Your task to perform on an android device: open app "Airtel Thanks" (install if not already installed) Image 0: 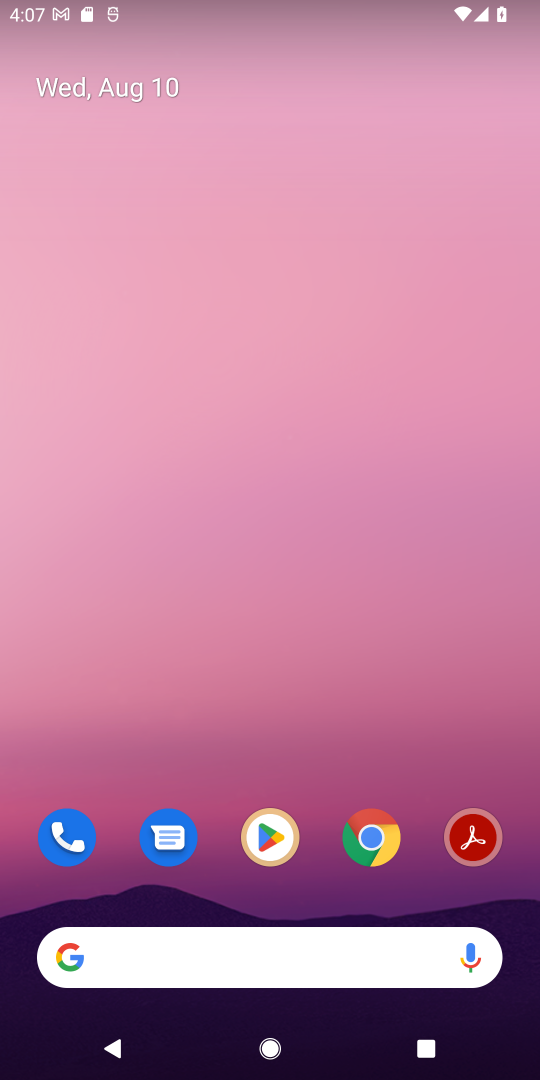
Step 0: click (268, 840)
Your task to perform on an android device: open app "Airtel Thanks" (install if not already installed) Image 1: 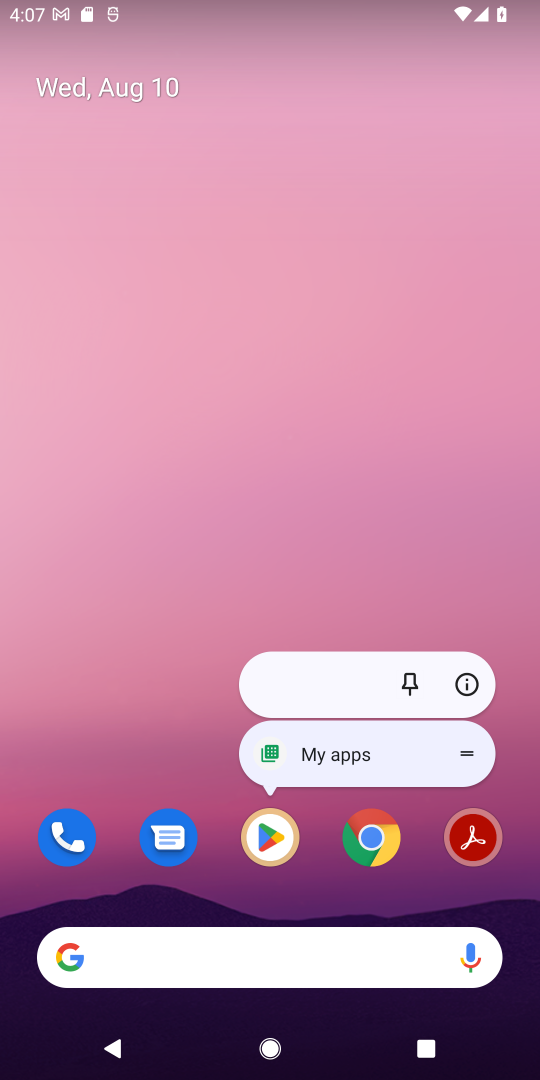
Step 1: click (268, 841)
Your task to perform on an android device: open app "Airtel Thanks" (install if not already installed) Image 2: 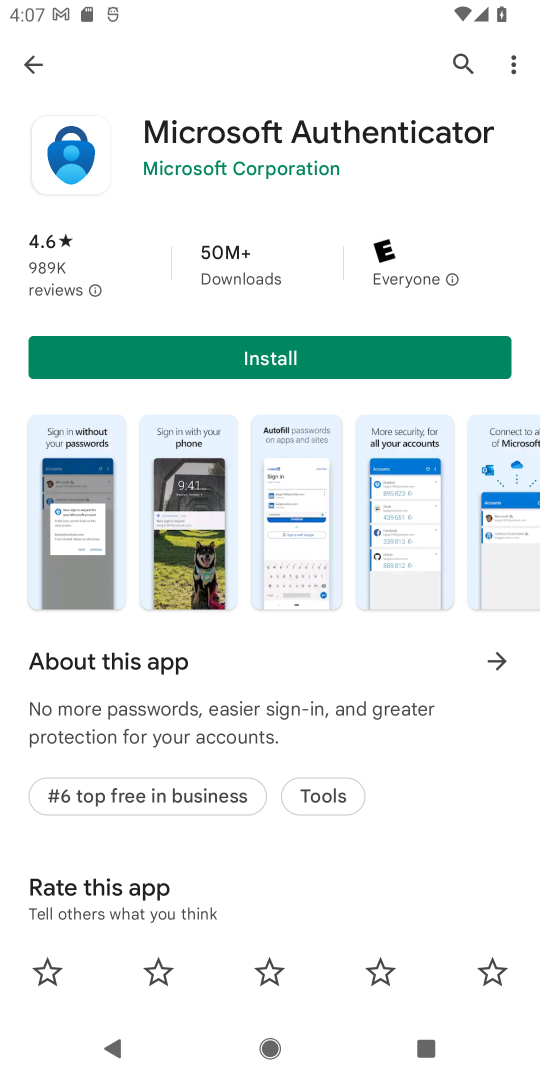
Step 2: click (459, 53)
Your task to perform on an android device: open app "Airtel Thanks" (install if not already installed) Image 3: 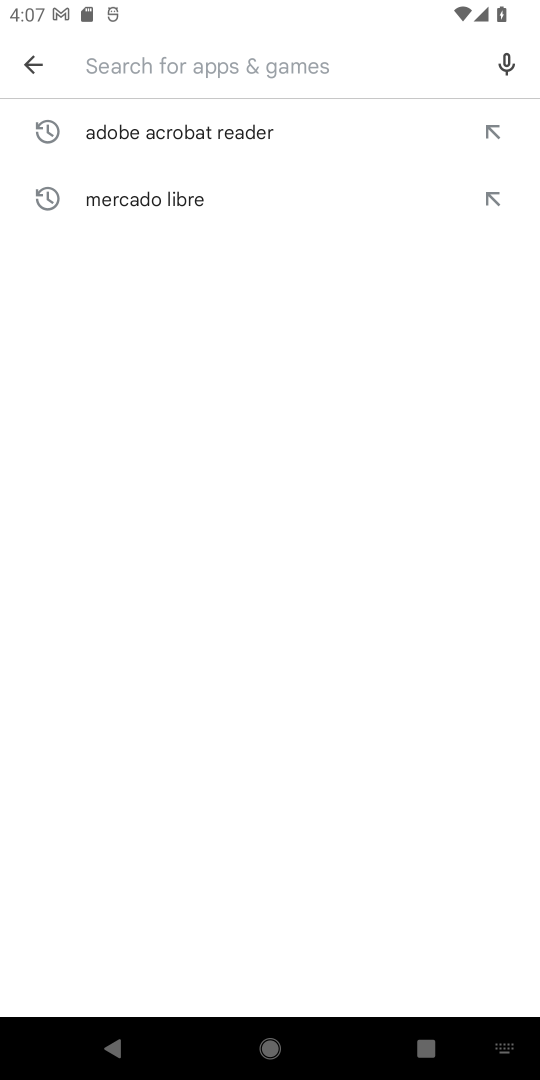
Step 3: type "Airtel Thanks"
Your task to perform on an android device: open app "Airtel Thanks" (install if not already installed) Image 4: 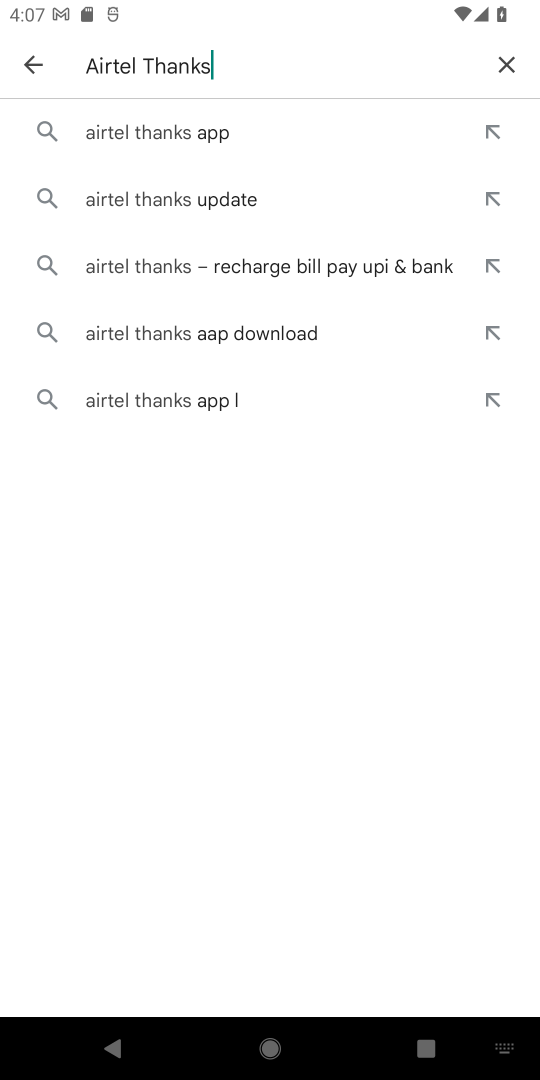
Step 4: click (223, 140)
Your task to perform on an android device: open app "Airtel Thanks" (install if not already installed) Image 5: 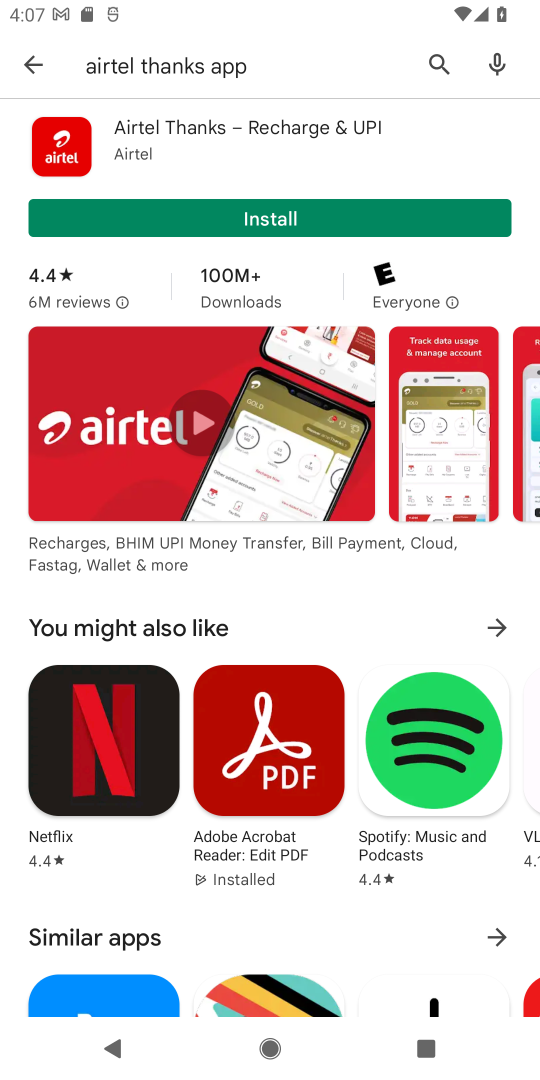
Step 5: click (272, 219)
Your task to perform on an android device: open app "Airtel Thanks" (install if not already installed) Image 6: 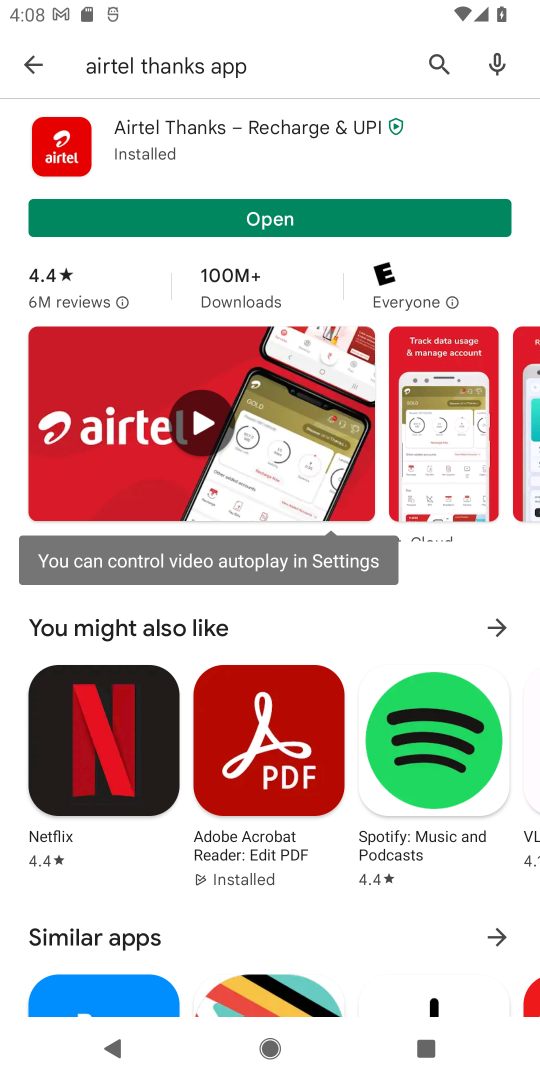
Step 6: click (334, 215)
Your task to perform on an android device: open app "Airtel Thanks" (install if not already installed) Image 7: 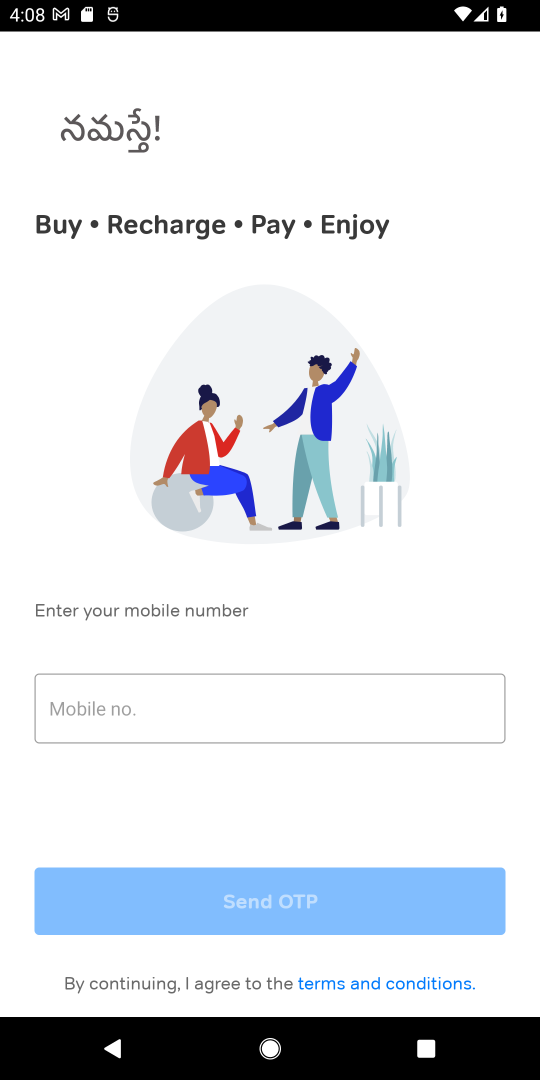
Step 7: task complete